Your task to perform on an android device: turn off notifications in google photos Image 0: 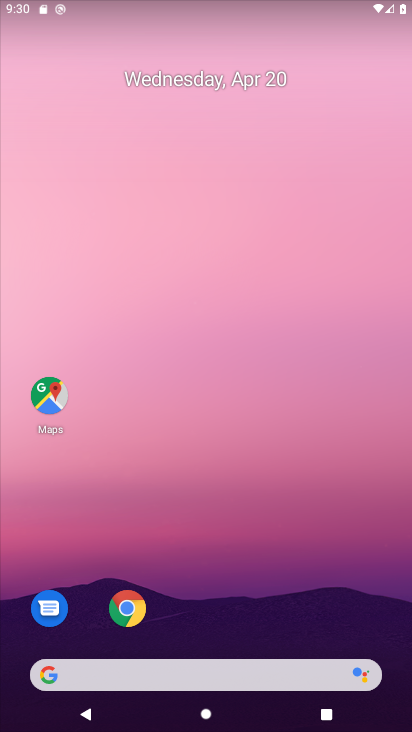
Step 0: drag from (202, 627) to (232, 94)
Your task to perform on an android device: turn off notifications in google photos Image 1: 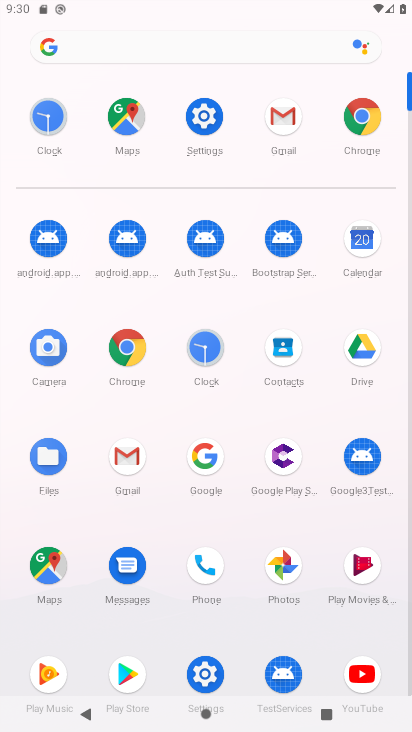
Step 1: click (285, 572)
Your task to perform on an android device: turn off notifications in google photos Image 2: 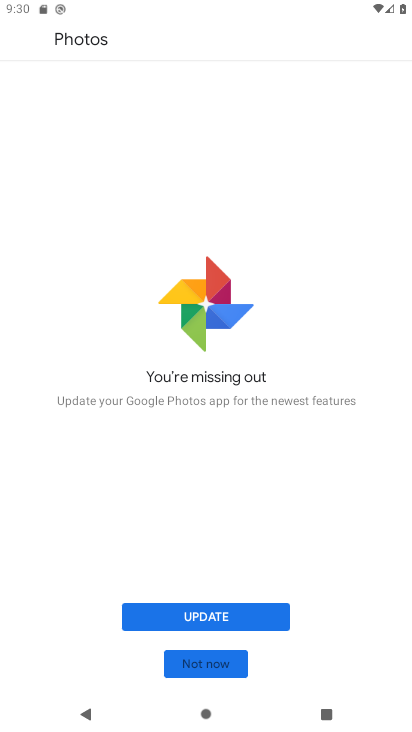
Step 2: click (221, 664)
Your task to perform on an android device: turn off notifications in google photos Image 3: 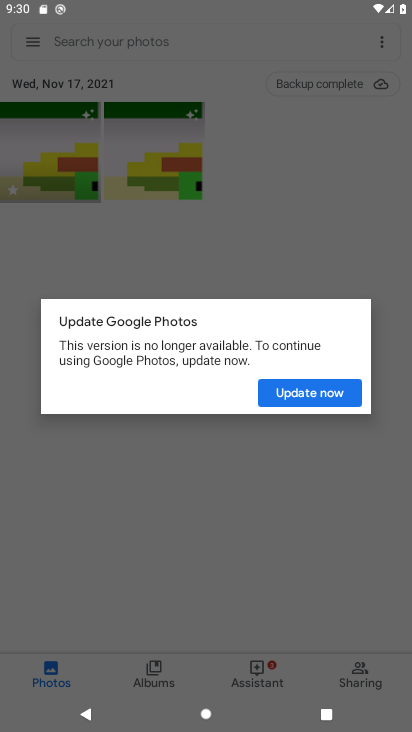
Step 3: click (310, 388)
Your task to perform on an android device: turn off notifications in google photos Image 4: 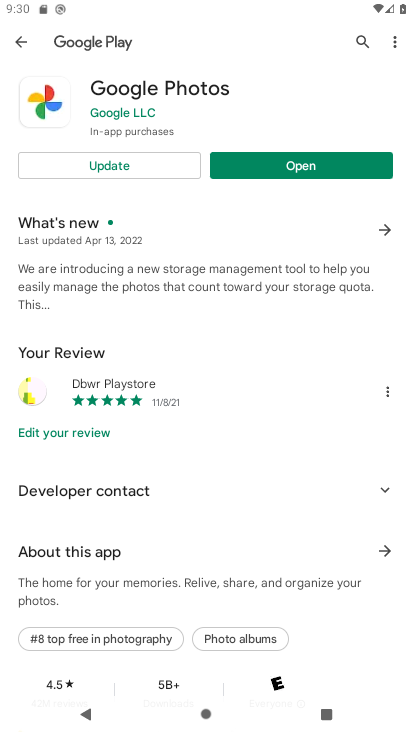
Step 4: click (253, 163)
Your task to perform on an android device: turn off notifications in google photos Image 5: 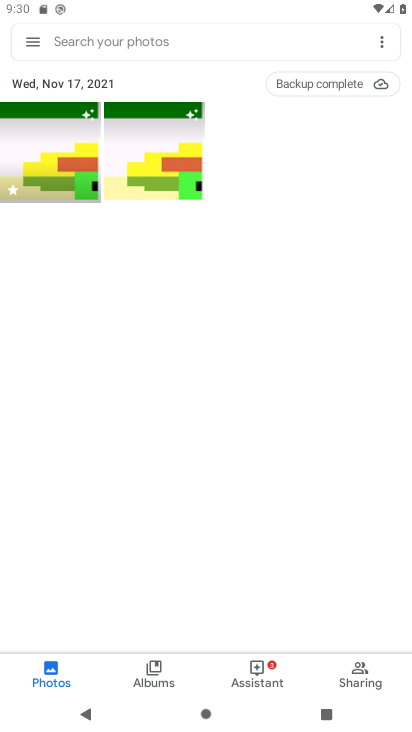
Step 5: click (28, 37)
Your task to perform on an android device: turn off notifications in google photos Image 6: 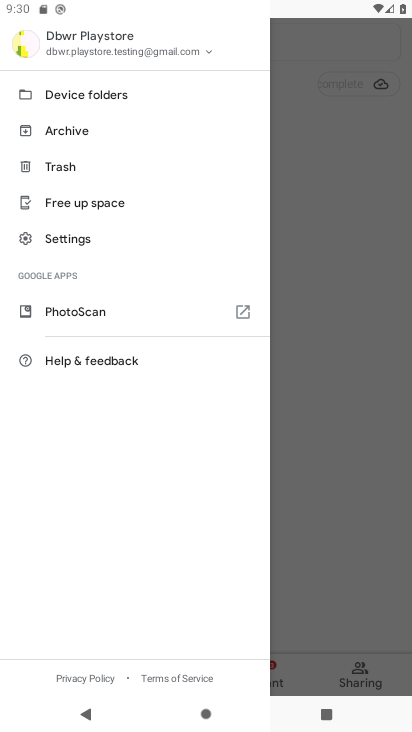
Step 6: click (73, 239)
Your task to perform on an android device: turn off notifications in google photos Image 7: 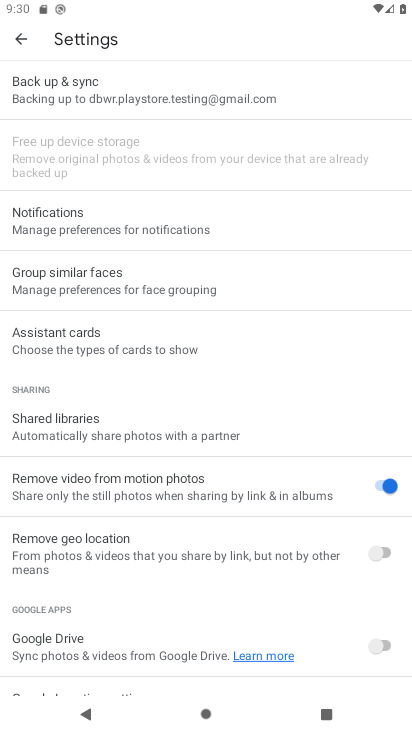
Step 7: click (95, 230)
Your task to perform on an android device: turn off notifications in google photos Image 8: 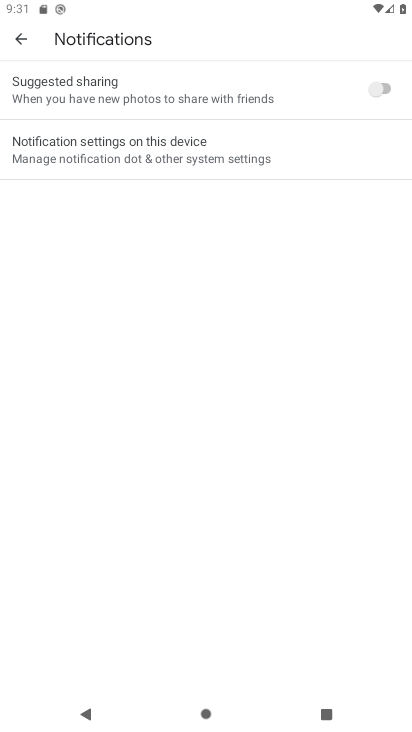
Step 8: click (117, 156)
Your task to perform on an android device: turn off notifications in google photos Image 9: 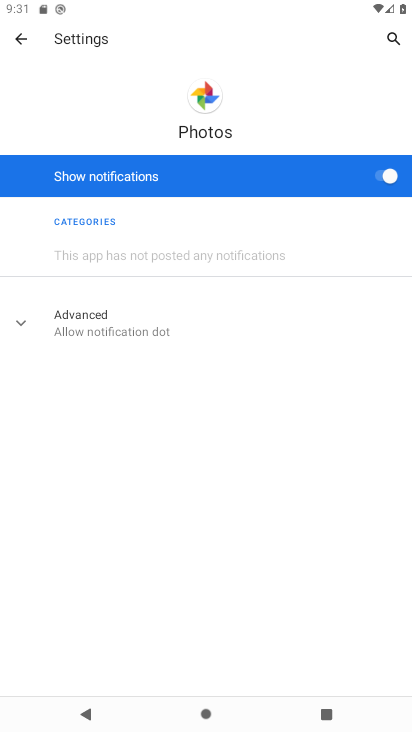
Step 9: click (368, 176)
Your task to perform on an android device: turn off notifications in google photos Image 10: 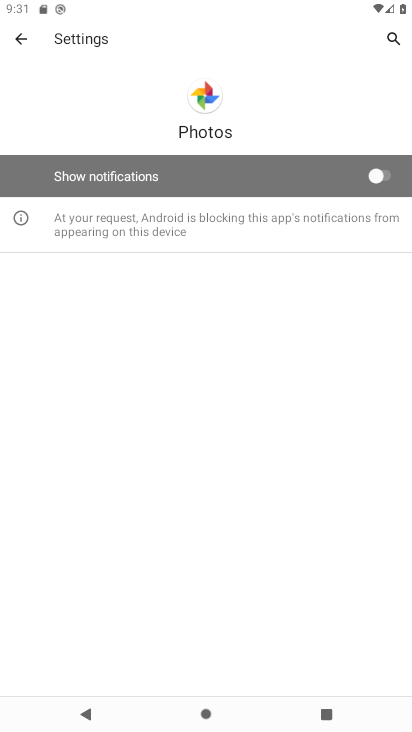
Step 10: task complete